Your task to perform on an android device: set an alarm Image 0: 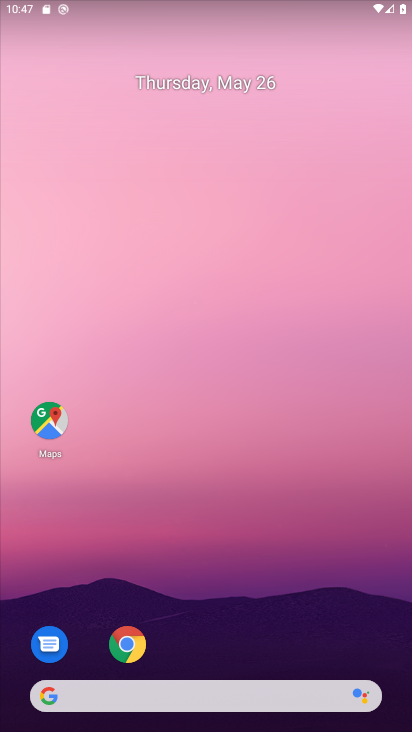
Step 0: drag from (381, 646) to (376, 326)
Your task to perform on an android device: set an alarm Image 1: 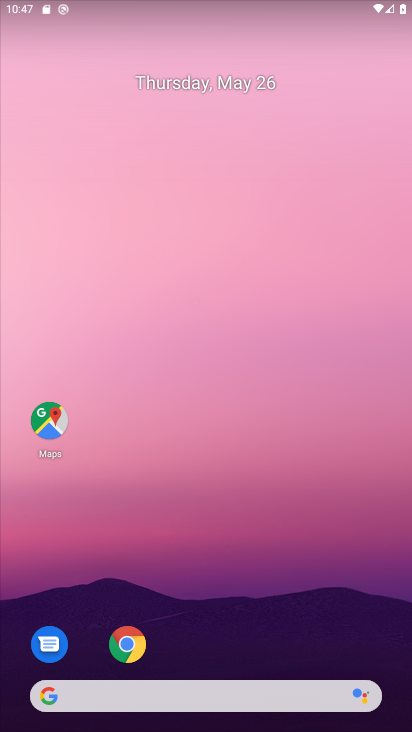
Step 1: drag from (383, 632) to (376, 276)
Your task to perform on an android device: set an alarm Image 2: 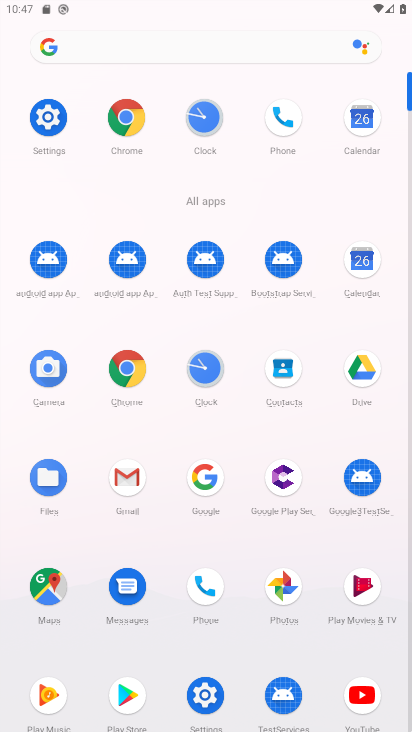
Step 2: click (206, 381)
Your task to perform on an android device: set an alarm Image 3: 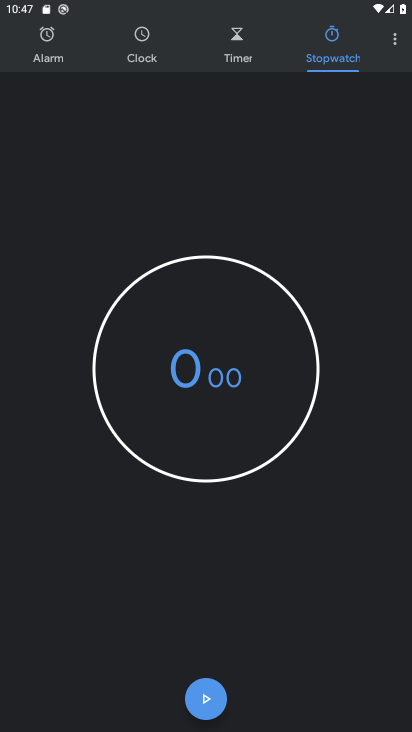
Step 3: click (52, 58)
Your task to perform on an android device: set an alarm Image 4: 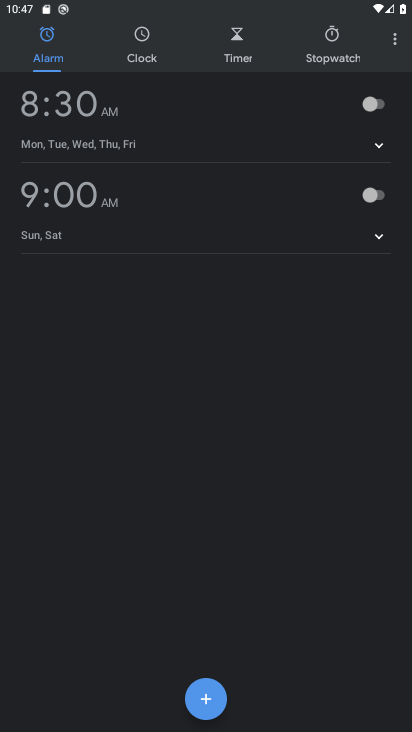
Step 4: click (206, 698)
Your task to perform on an android device: set an alarm Image 5: 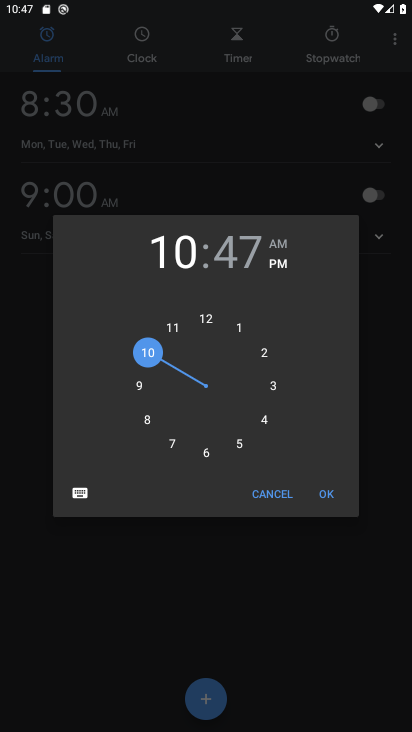
Step 5: click (204, 322)
Your task to perform on an android device: set an alarm Image 6: 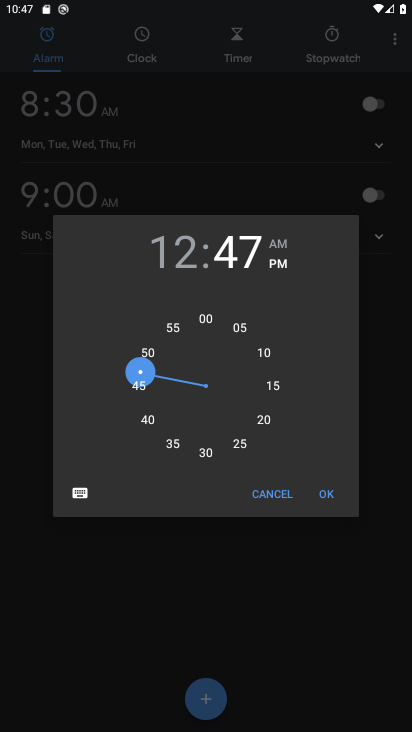
Step 6: click (204, 321)
Your task to perform on an android device: set an alarm Image 7: 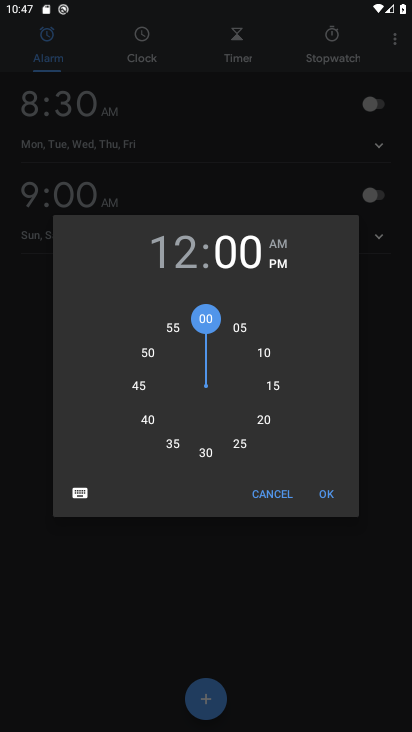
Step 7: click (327, 497)
Your task to perform on an android device: set an alarm Image 8: 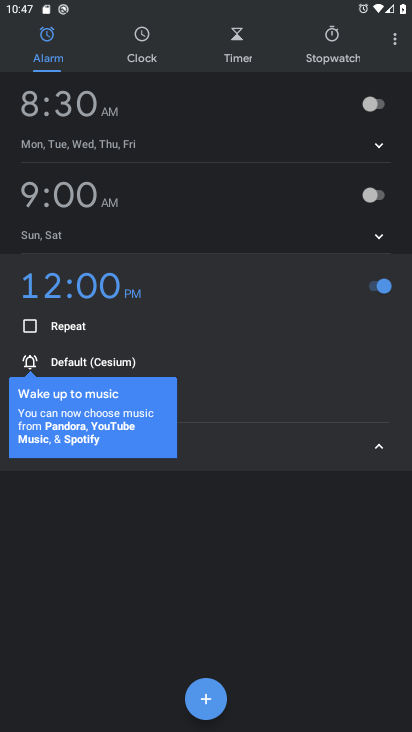
Step 8: task complete